Your task to perform on an android device: Go to Wikipedia Image 0: 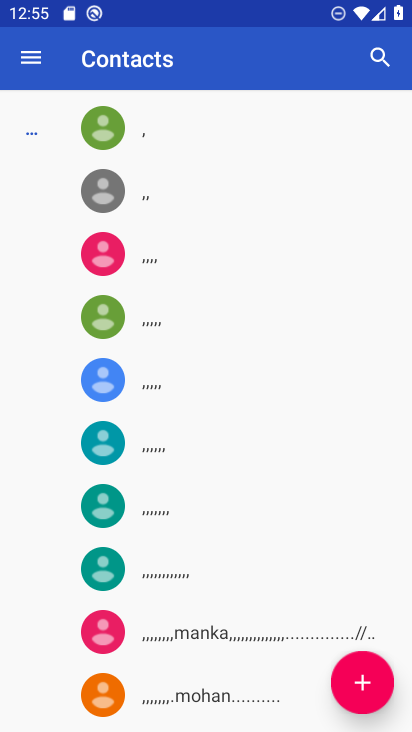
Step 0: press home button
Your task to perform on an android device: Go to Wikipedia Image 1: 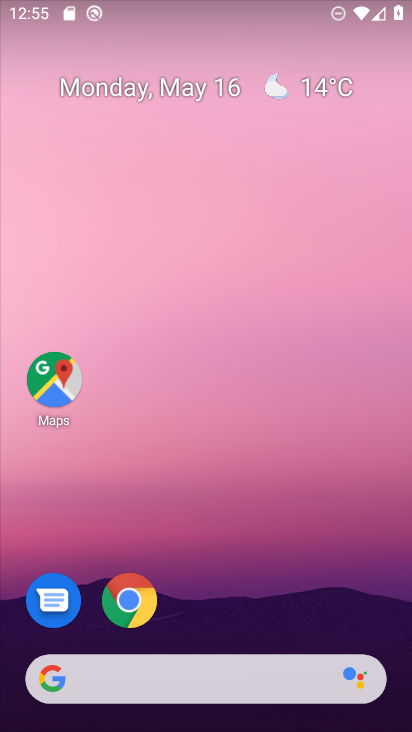
Step 1: click (127, 596)
Your task to perform on an android device: Go to Wikipedia Image 2: 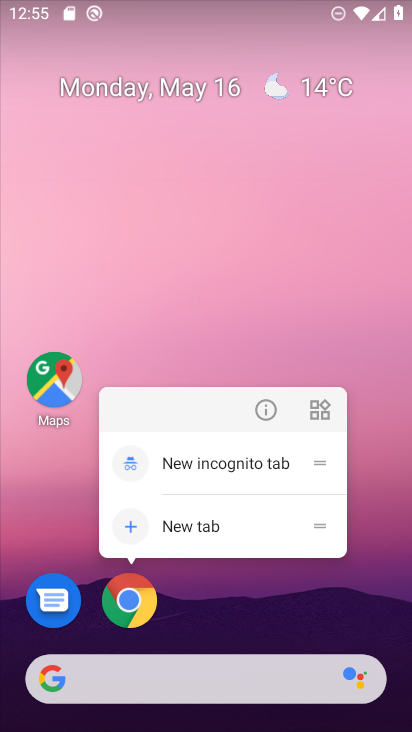
Step 2: click (128, 591)
Your task to perform on an android device: Go to Wikipedia Image 3: 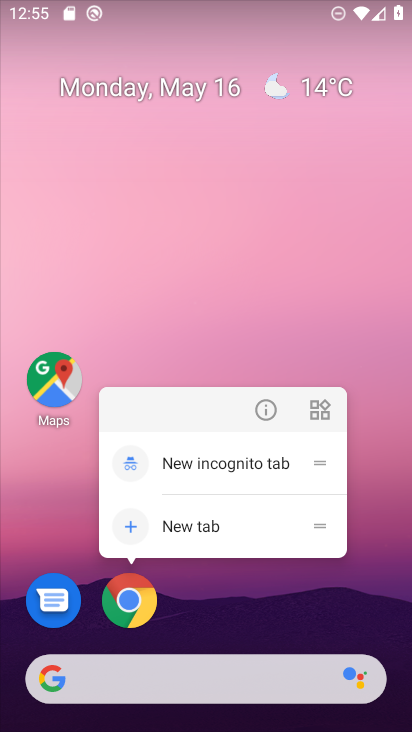
Step 3: click (125, 593)
Your task to perform on an android device: Go to Wikipedia Image 4: 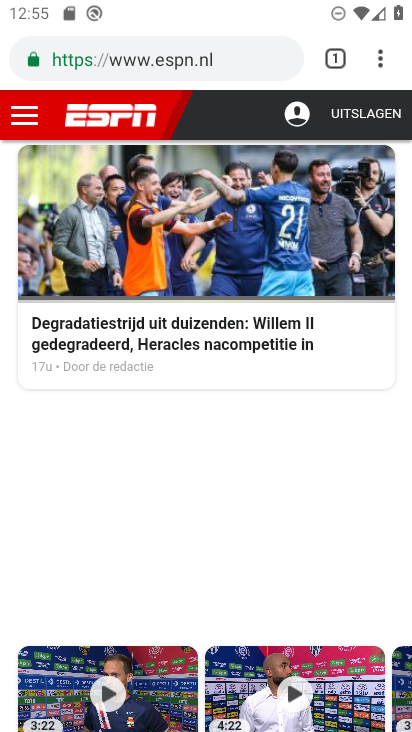
Step 4: click (332, 48)
Your task to perform on an android device: Go to Wikipedia Image 5: 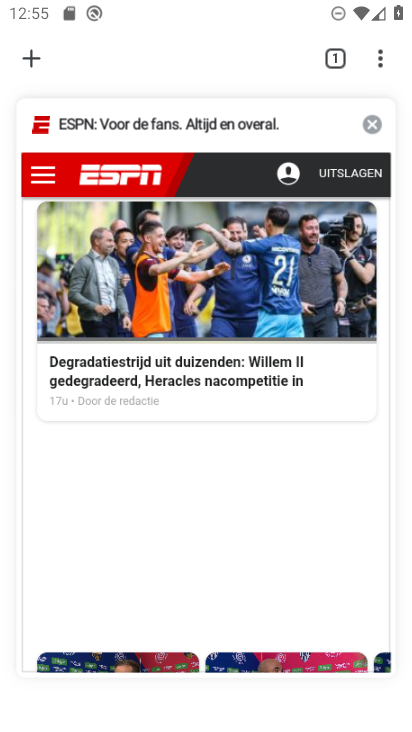
Step 5: click (372, 120)
Your task to perform on an android device: Go to Wikipedia Image 6: 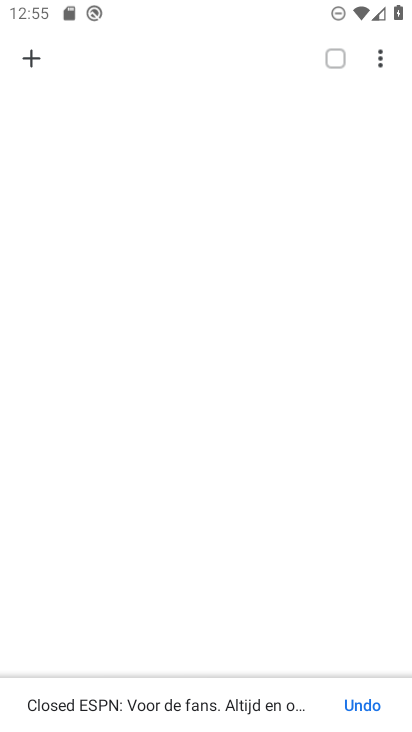
Step 6: click (35, 55)
Your task to perform on an android device: Go to Wikipedia Image 7: 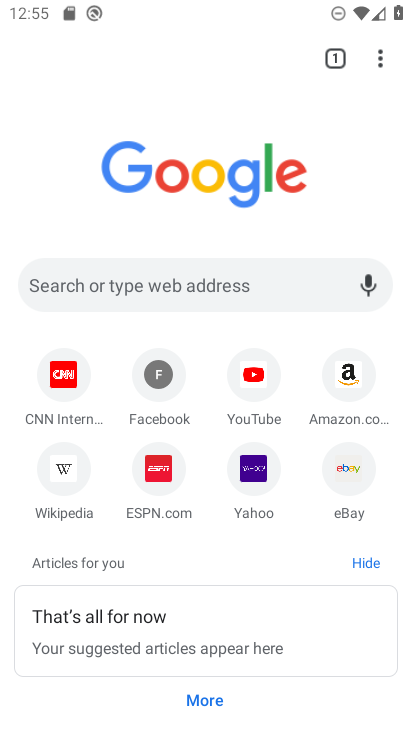
Step 7: click (61, 461)
Your task to perform on an android device: Go to Wikipedia Image 8: 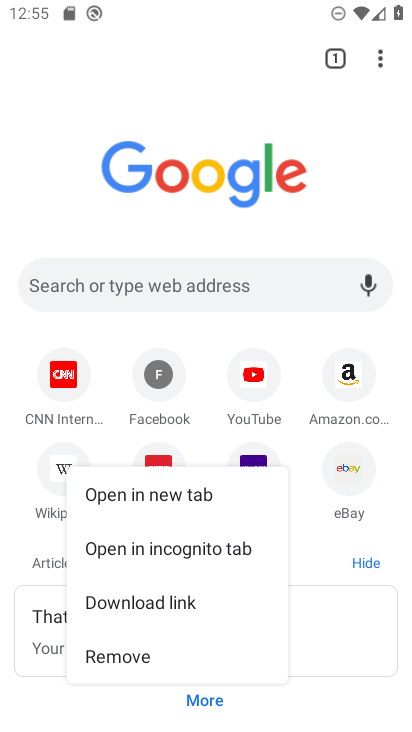
Step 8: click (47, 464)
Your task to perform on an android device: Go to Wikipedia Image 9: 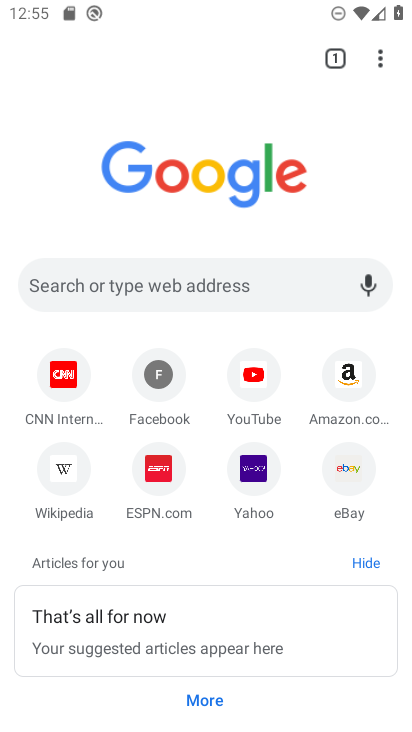
Step 9: click (58, 460)
Your task to perform on an android device: Go to Wikipedia Image 10: 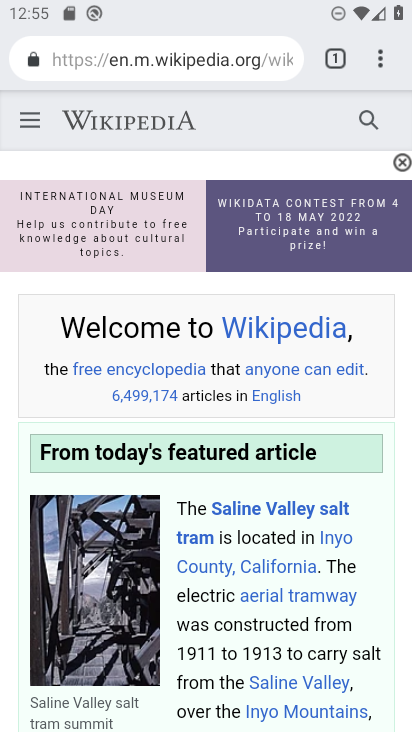
Step 10: drag from (178, 680) to (180, 241)
Your task to perform on an android device: Go to Wikipedia Image 11: 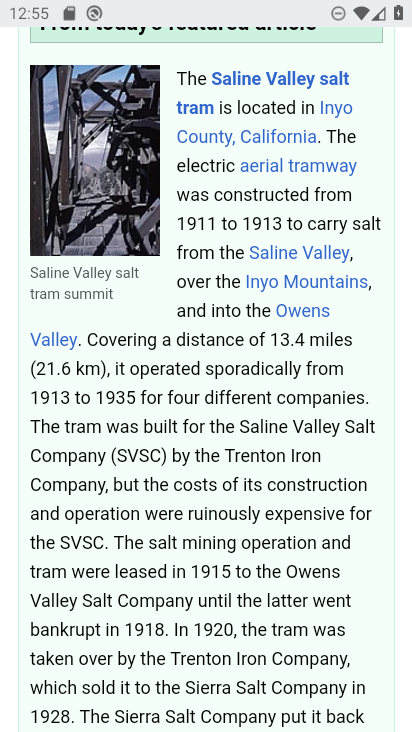
Step 11: click (227, 238)
Your task to perform on an android device: Go to Wikipedia Image 12: 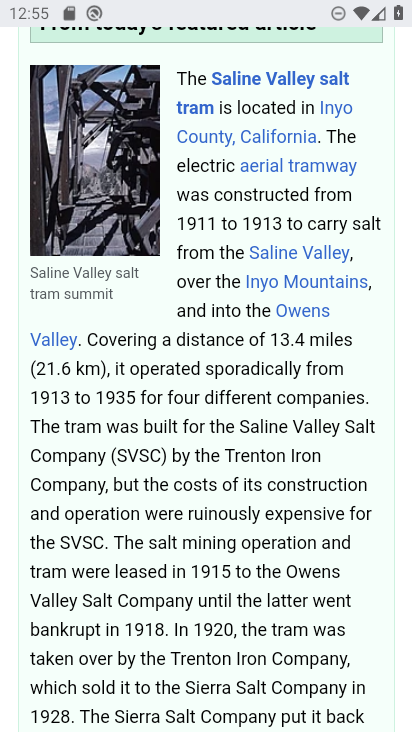
Step 12: task complete